Your task to perform on an android device: Open my contact list Image 0: 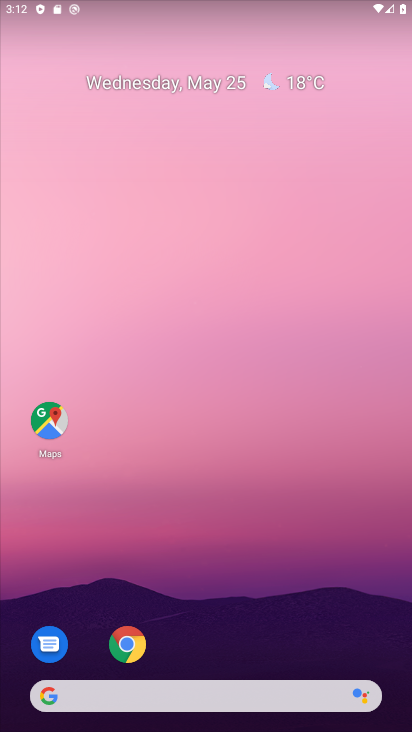
Step 0: drag from (287, 605) to (299, 248)
Your task to perform on an android device: Open my contact list Image 1: 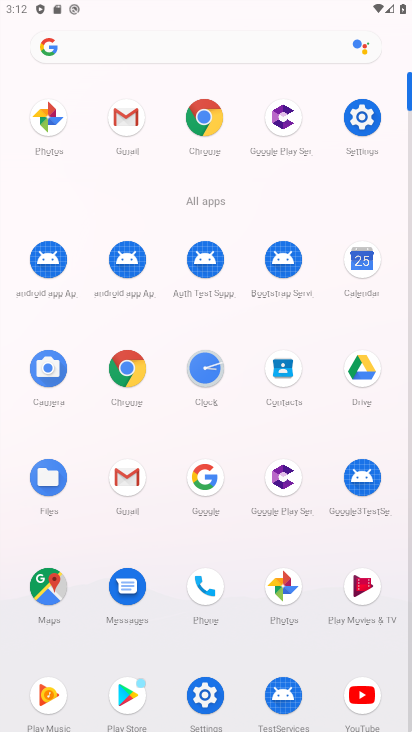
Step 1: click (284, 366)
Your task to perform on an android device: Open my contact list Image 2: 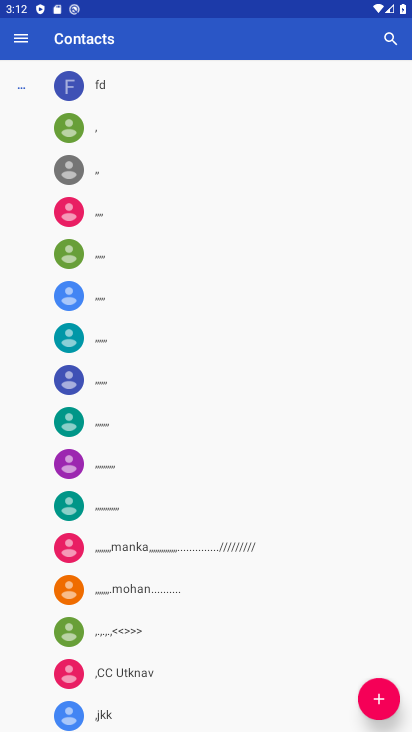
Step 2: task complete